Your task to perform on an android device: toggle airplane mode Image 0: 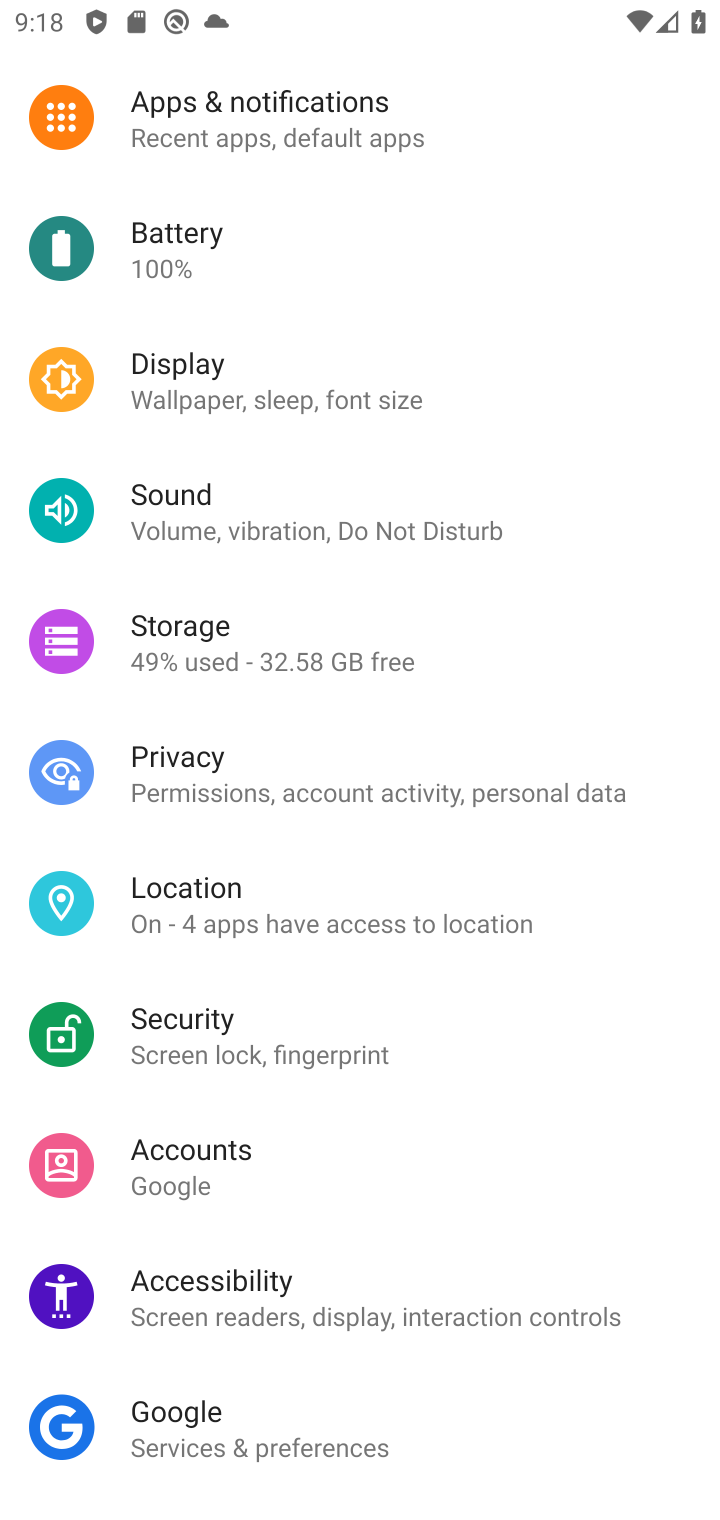
Step 0: drag from (199, 236) to (236, 1090)
Your task to perform on an android device: toggle airplane mode Image 1: 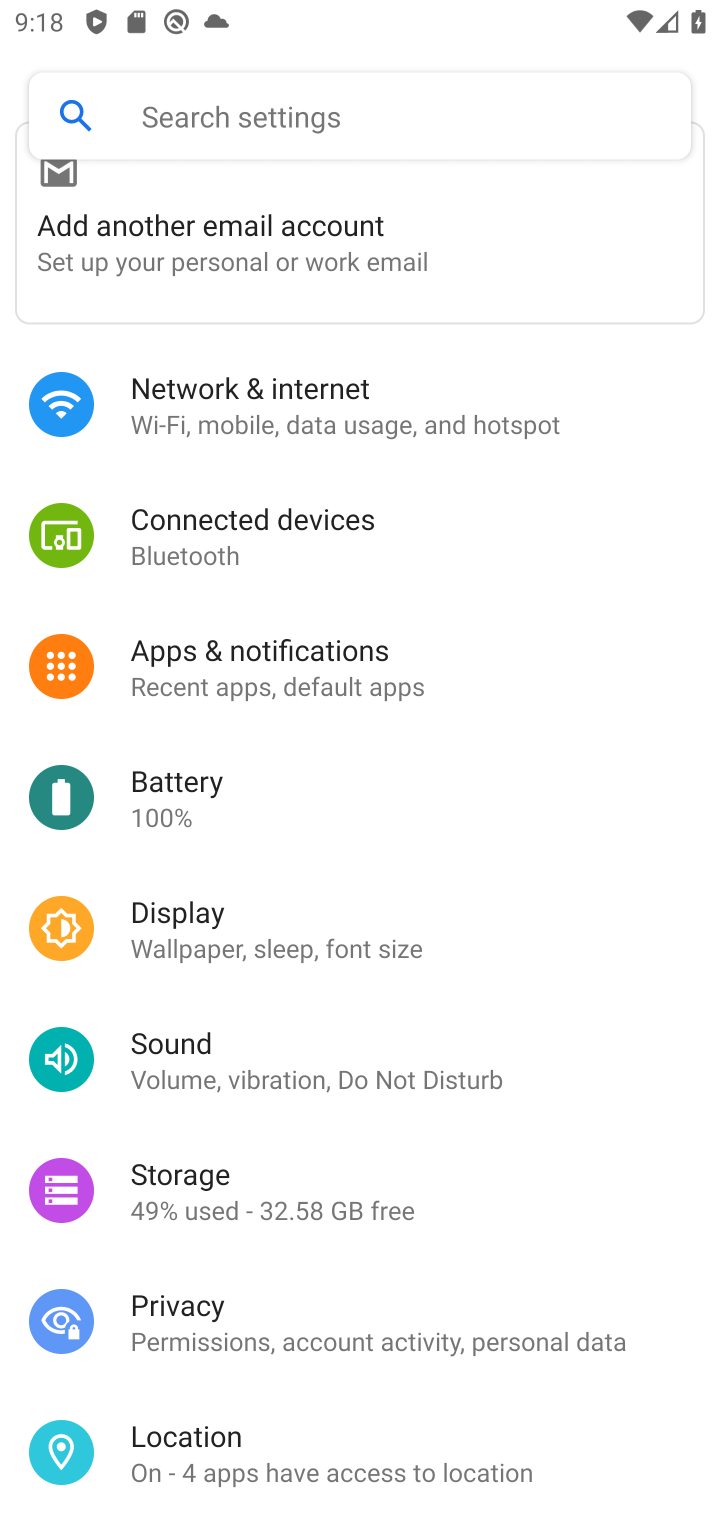
Step 1: click (218, 423)
Your task to perform on an android device: toggle airplane mode Image 2: 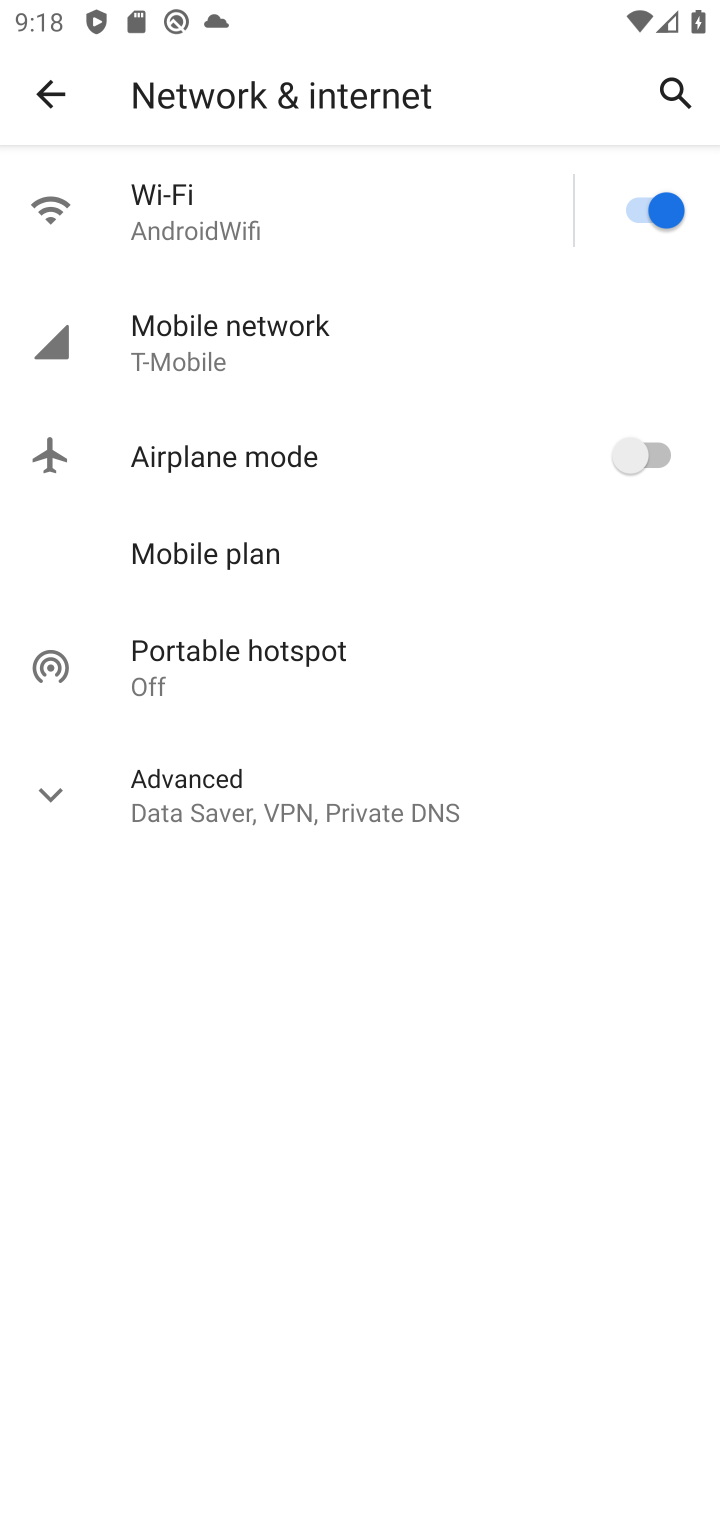
Step 2: click (641, 453)
Your task to perform on an android device: toggle airplane mode Image 3: 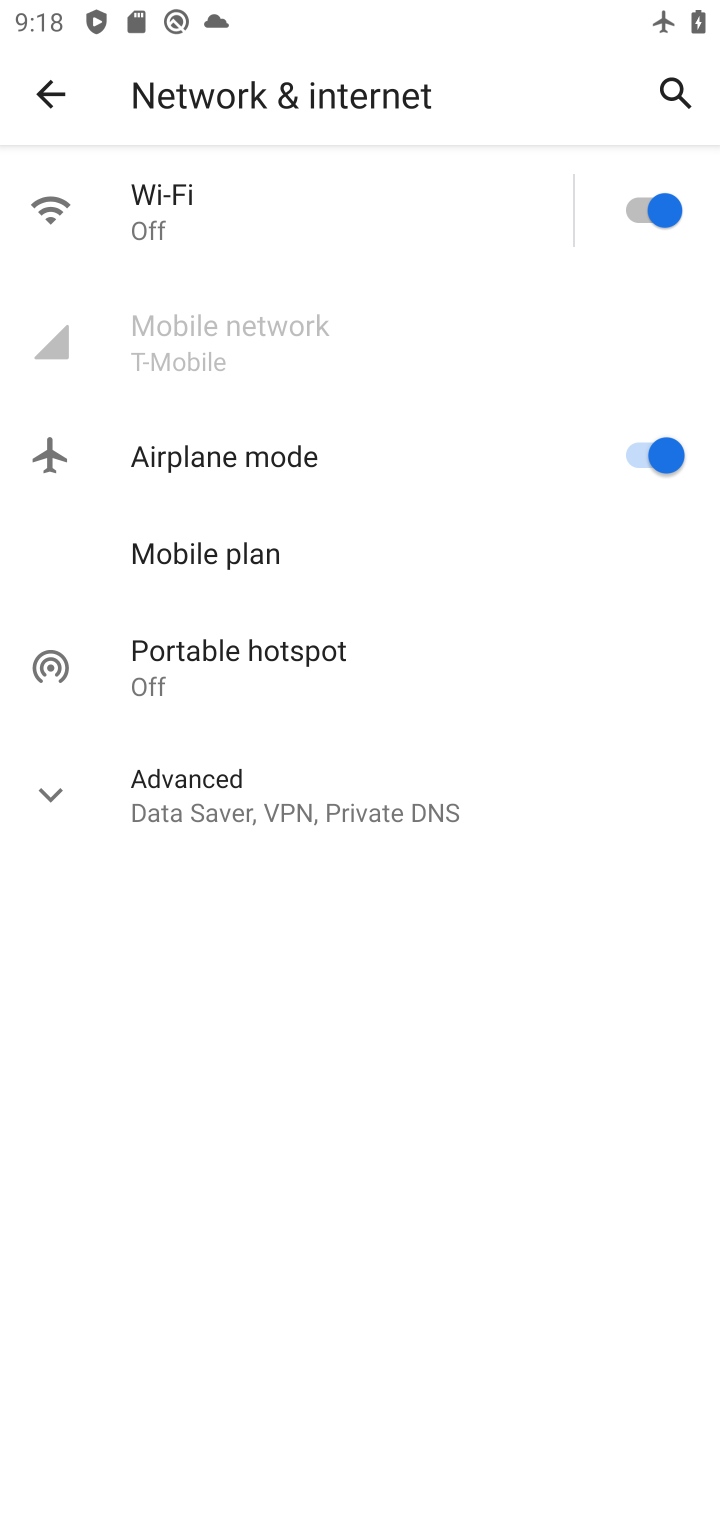
Step 3: task complete